Your task to perform on an android device: empty trash in the gmail app Image 0: 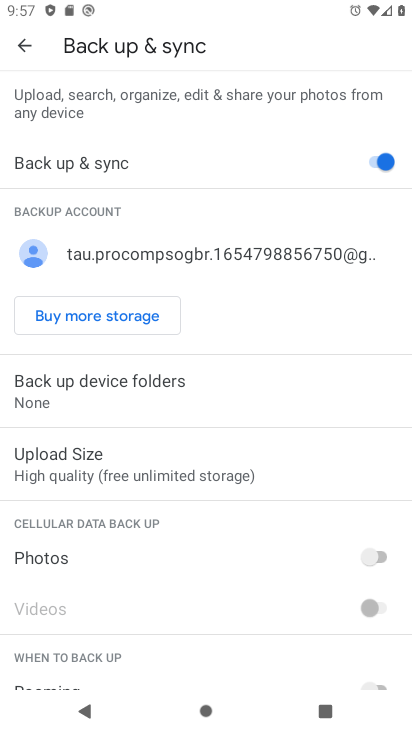
Step 0: press back button
Your task to perform on an android device: empty trash in the gmail app Image 1: 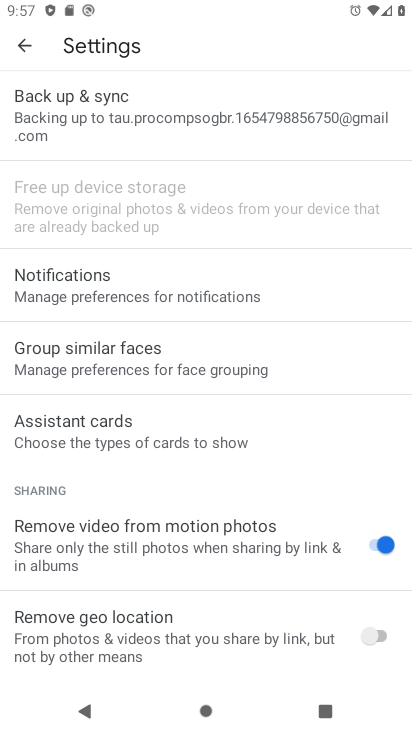
Step 1: press back button
Your task to perform on an android device: empty trash in the gmail app Image 2: 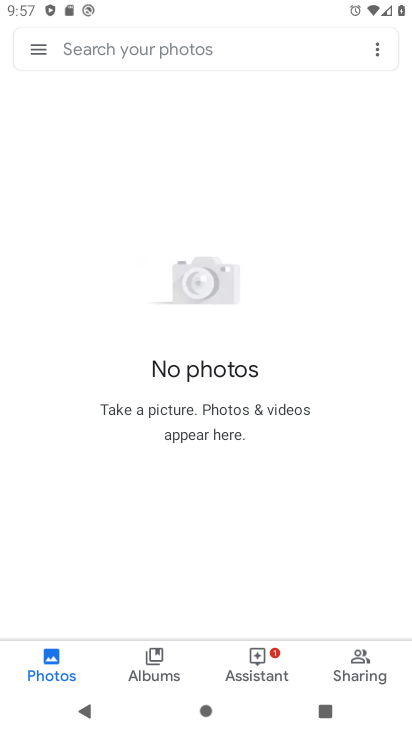
Step 2: press back button
Your task to perform on an android device: empty trash in the gmail app Image 3: 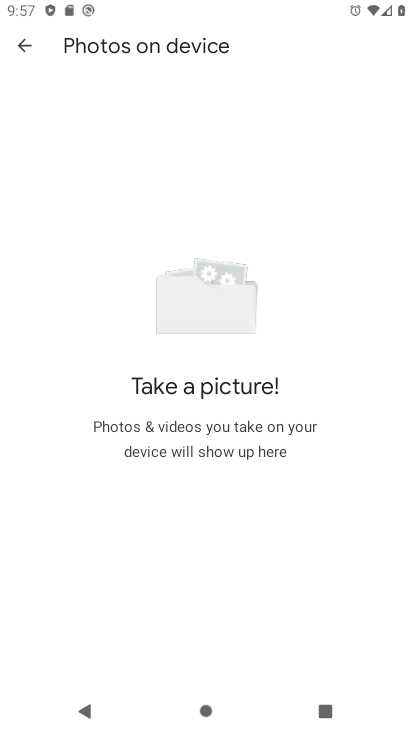
Step 3: press back button
Your task to perform on an android device: empty trash in the gmail app Image 4: 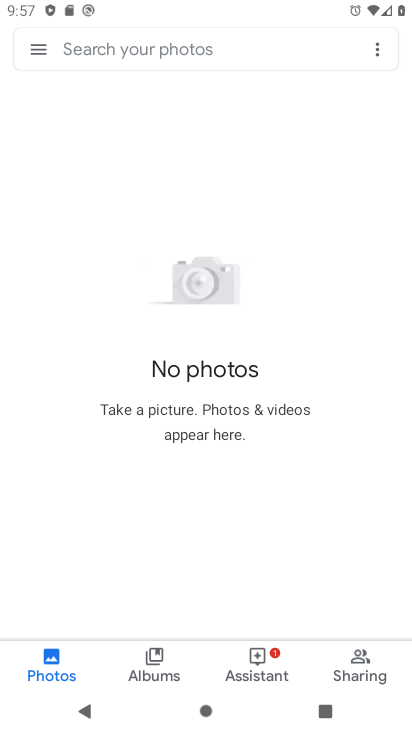
Step 4: click (45, 45)
Your task to perform on an android device: empty trash in the gmail app Image 5: 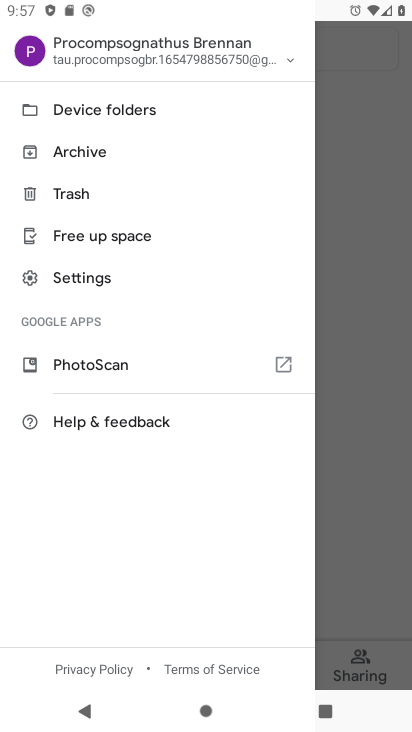
Step 5: click (113, 189)
Your task to perform on an android device: empty trash in the gmail app Image 6: 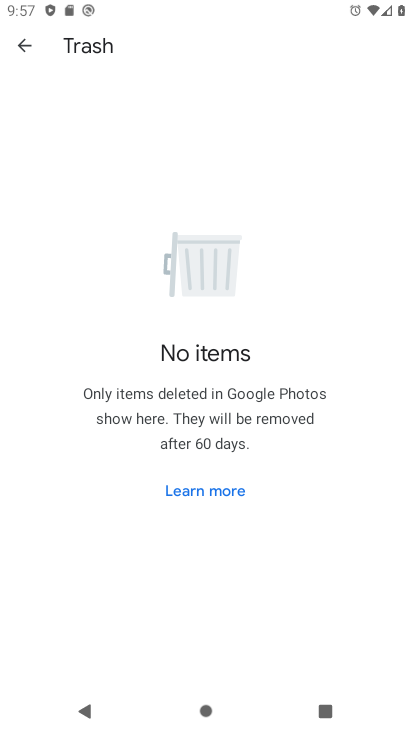
Step 6: task complete